Your task to perform on an android device: Go to Android settings Image 0: 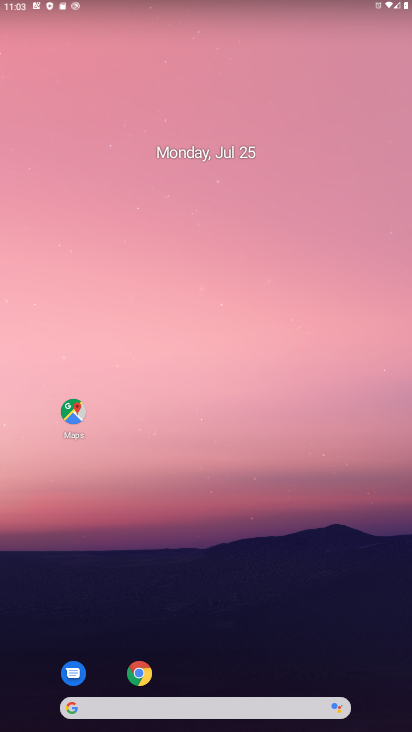
Step 0: drag from (235, 676) to (227, 9)
Your task to perform on an android device: Go to Android settings Image 1: 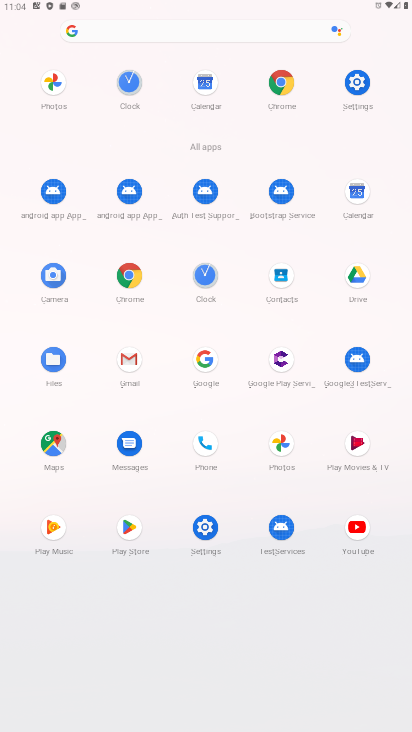
Step 1: click (356, 76)
Your task to perform on an android device: Go to Android settings Image 2: 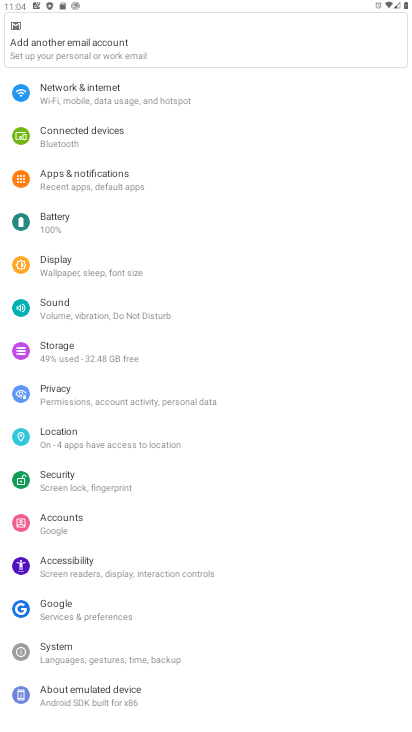
Step 2: click (153, 689)
Your task to perform on an android device: Go to Android settings Image 3: 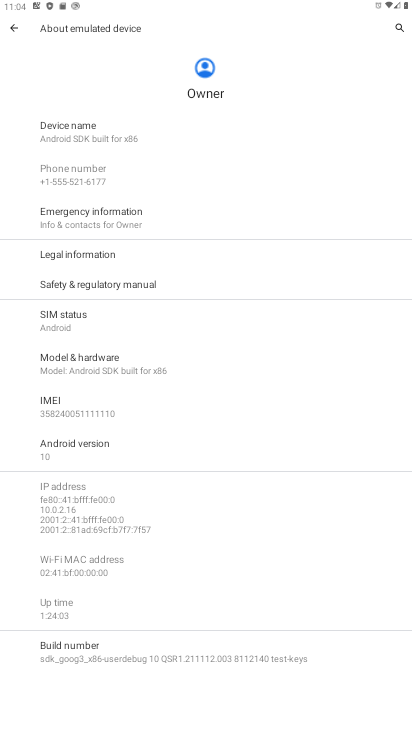
Step 3: click (124, 451)
Your task to perform on an android device: Go to Android settings Image 4: 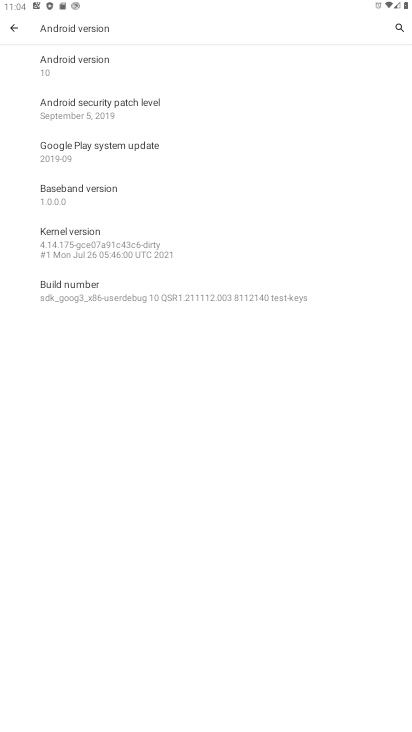
Step 4: task complete